Your task to perform on an android device: Do I have any events today? Image 0: 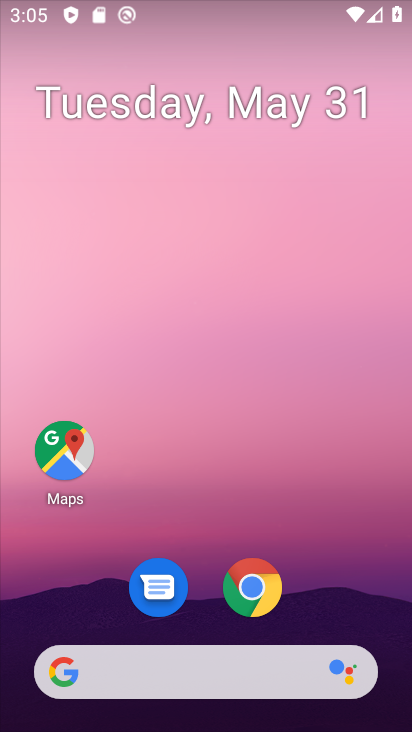
Step 0: drag from (312, 613) to (342, 14)
Your task to perform on an android device: Do I have any events today? Image 1: 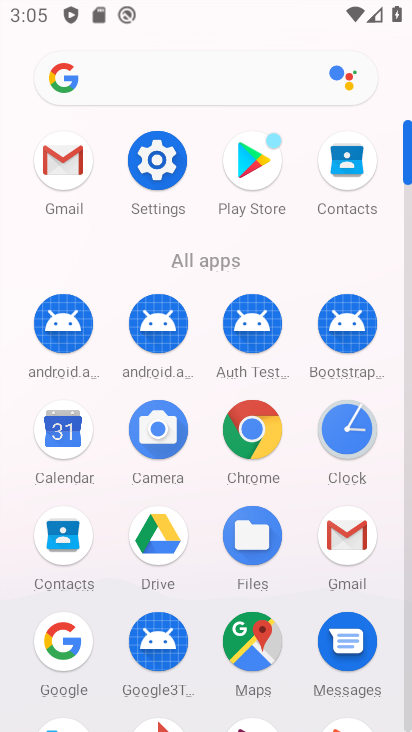
Step 1: click (66, 425)
Your task to perform on an android device: Do I have any events today? Image 2: 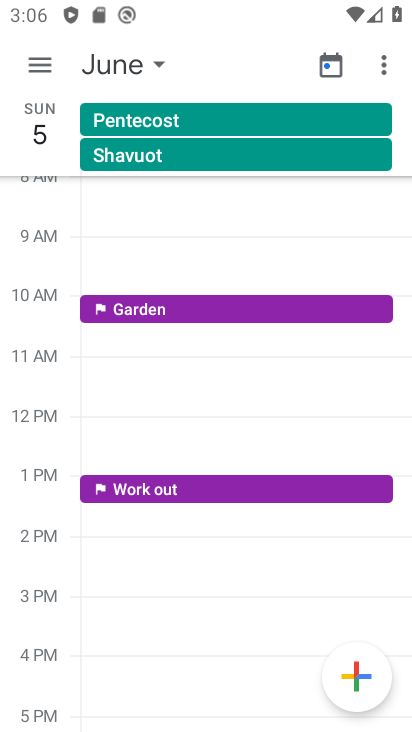
Step 2: click (108, 75)
Your task to perform on an android device: Do I have any events today? Image 3: 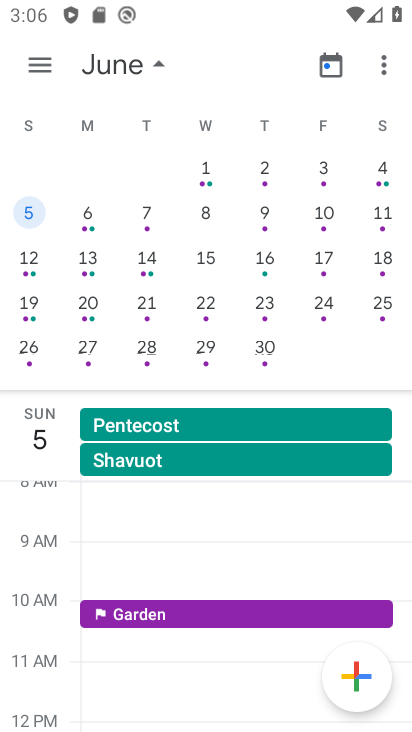
Step 3: drag from (29, 257) to (386, 299)
Your task to perform on an android device: Do I have any events today? Image 4: 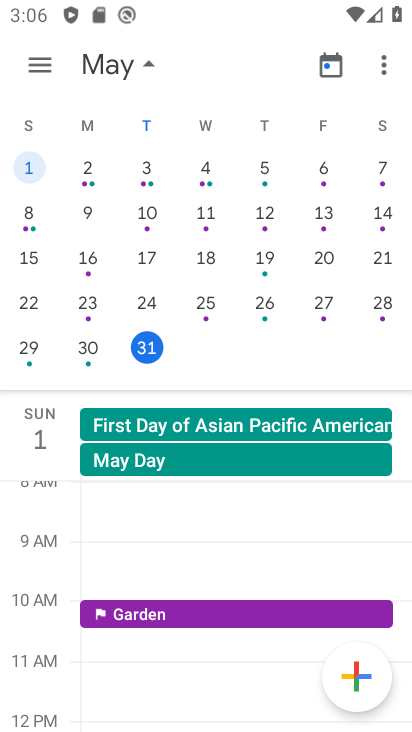
Step 4: click (152, 347)
Your task to perform on an android device: Do I have any events today? Image 5: 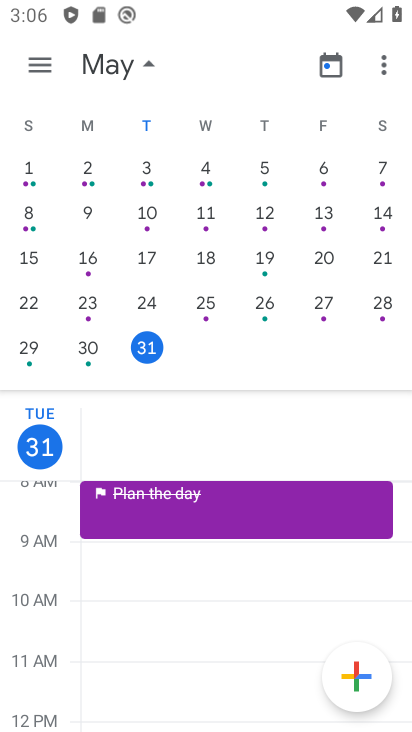
Step 5: click (49, 69)
Your task to perform on an android device: Do I have any events today? Image 6: 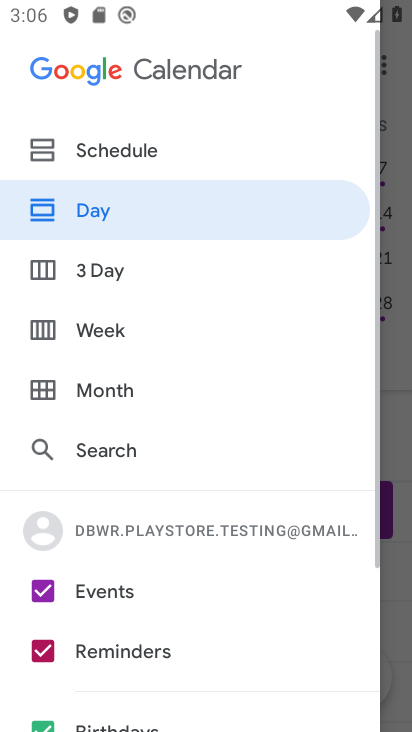
Step 6: click (161, 139)
Your task to perform on an android device: Do I have any events today? Image 7: 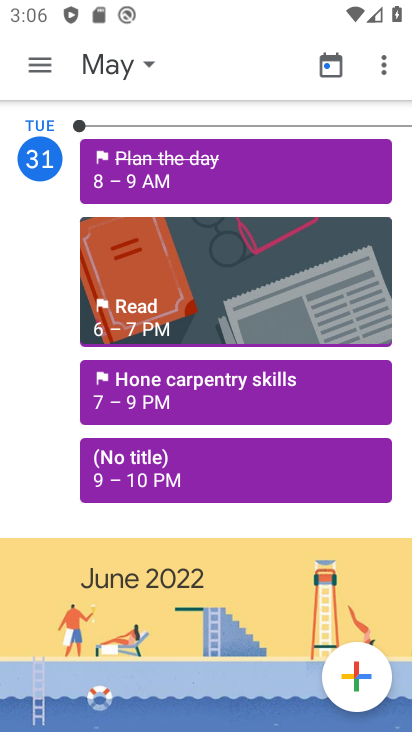
Step 7: task complete